Your task to perform on an android device: Check the new Jordans on Nike. Image 0: 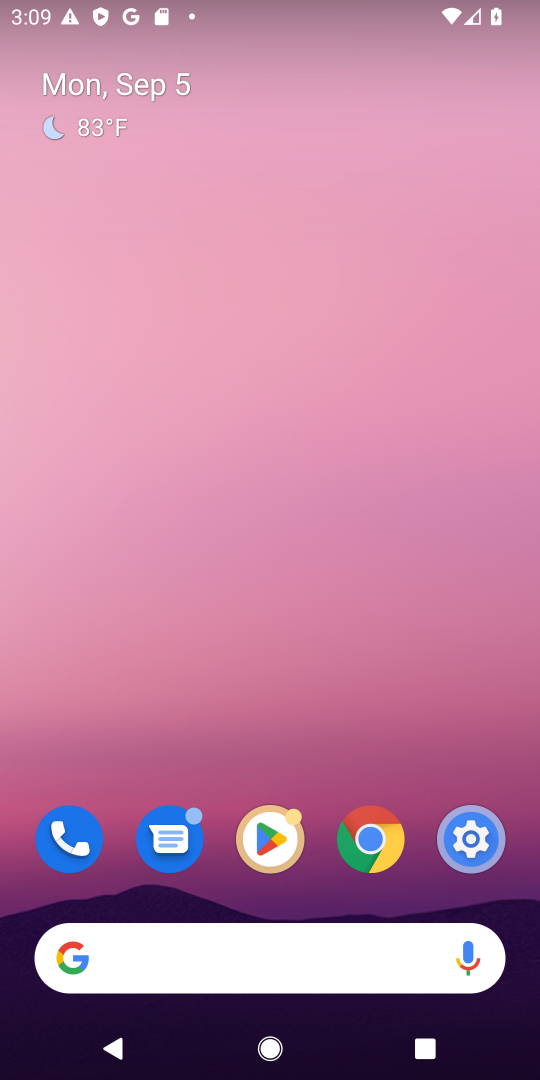
Step 0: click (346, 955)
Your task to perform on an android device: Check the new Jordans on Nike. Image 1: 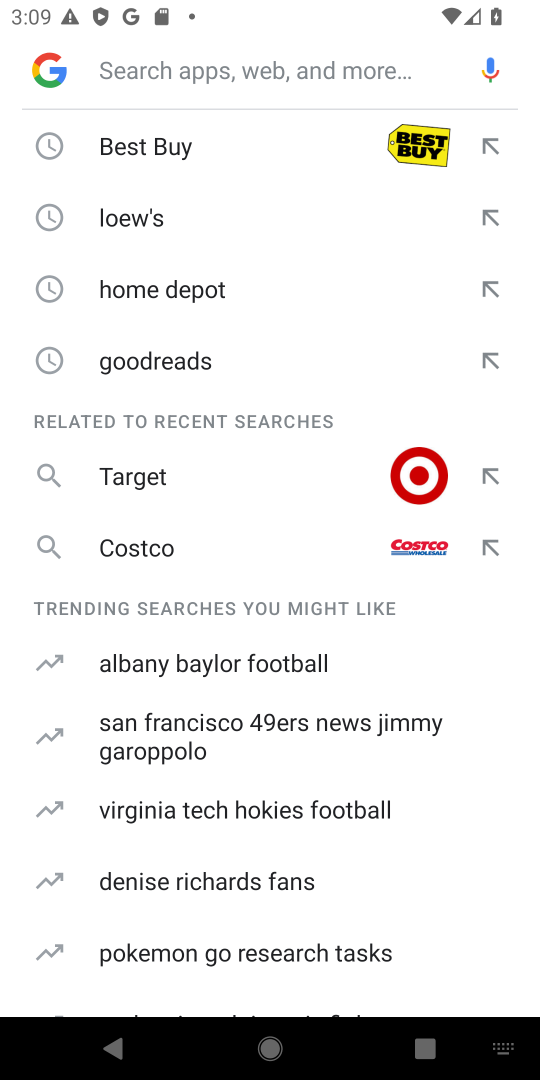
Step 1: type "nike"
Your task to perform on an android device: Check the new Jordans on Nike. Image 2: 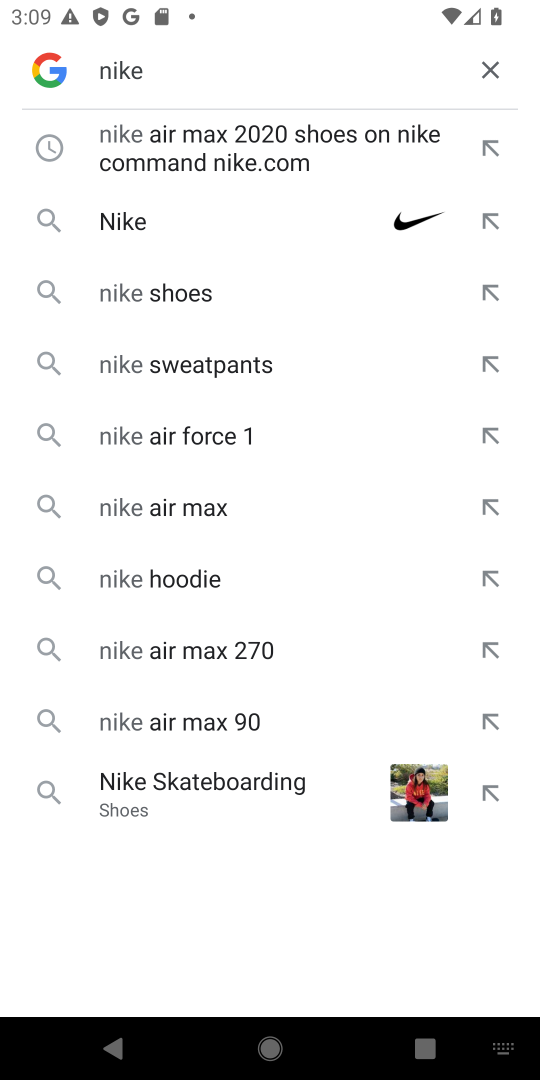
Step 2: press enter
Your task to perform on an android device: Check the new Jordans on Nike. Image 3: 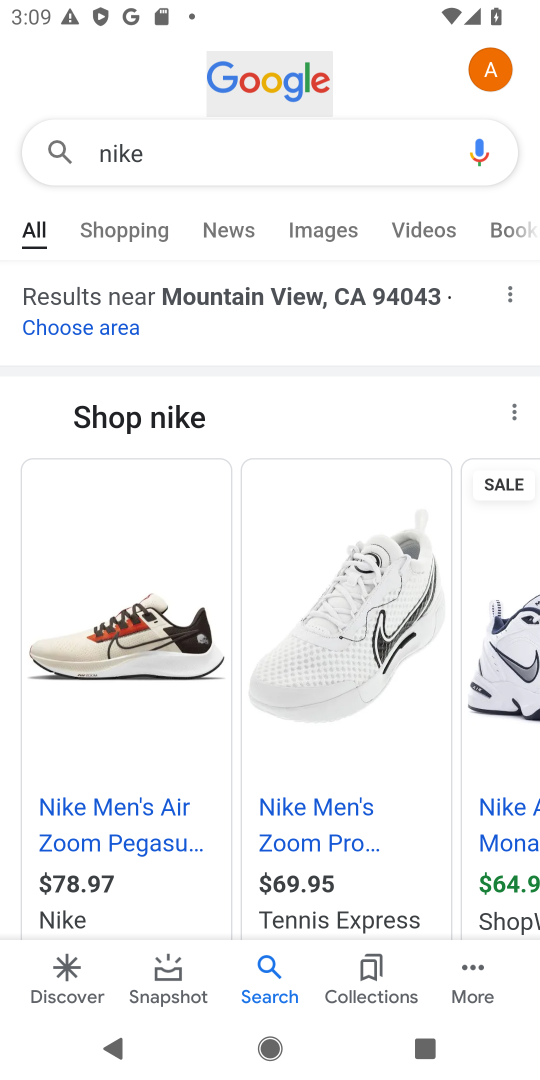
Step 3: drag from (252, 442) to (256, 334)
Your task to perform on an android device: Check the new Jordans on Nike. Image 4: 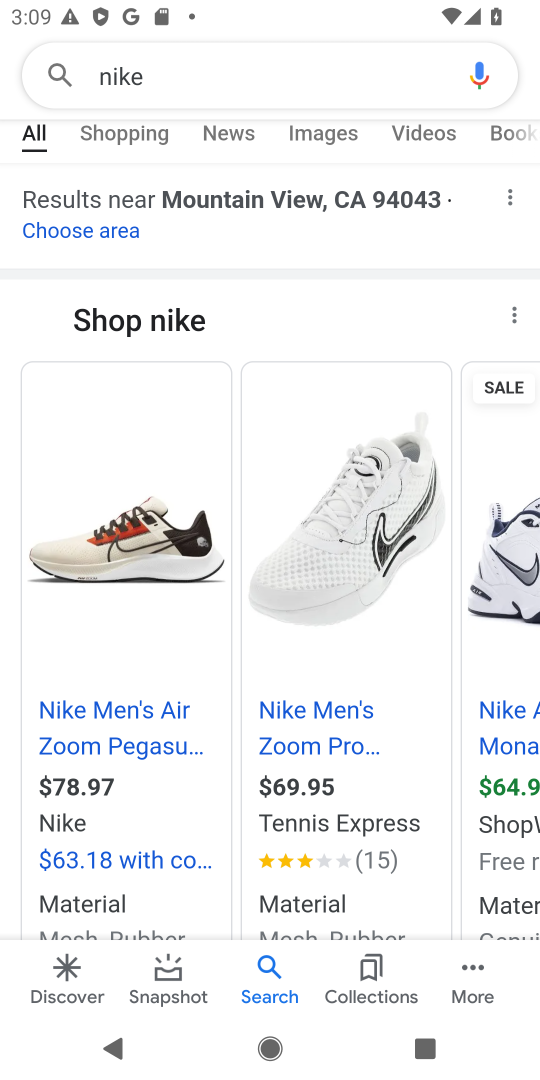
Step 4: drag from (233, 228) to (253, 0)
Your task to perform on an android device: Check the new Jordans on Nike. Image 5: 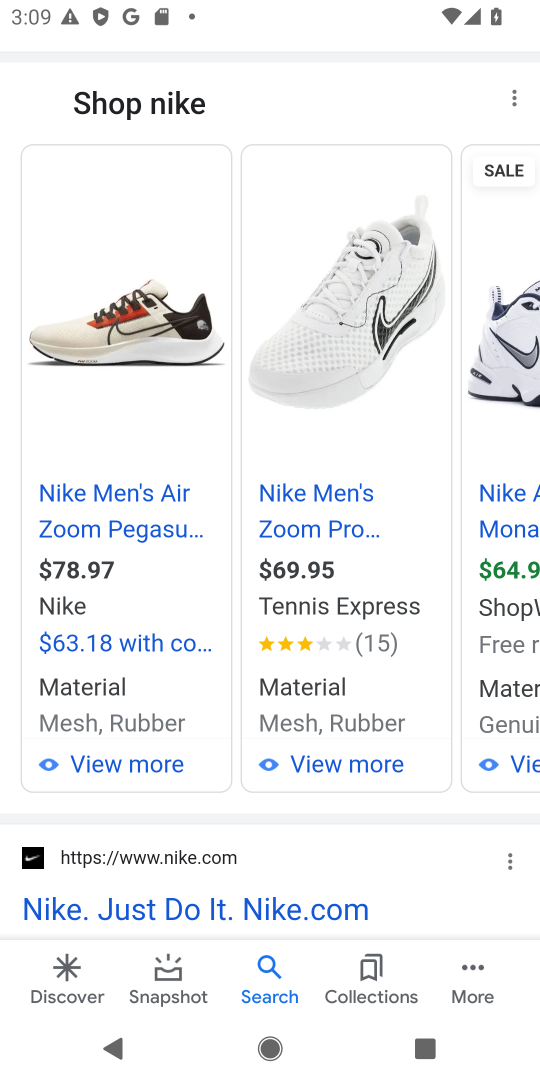
Step 5: click (132, 851)
Your task to perform on an android device: Check the new Jordans on Nike. Image 6: 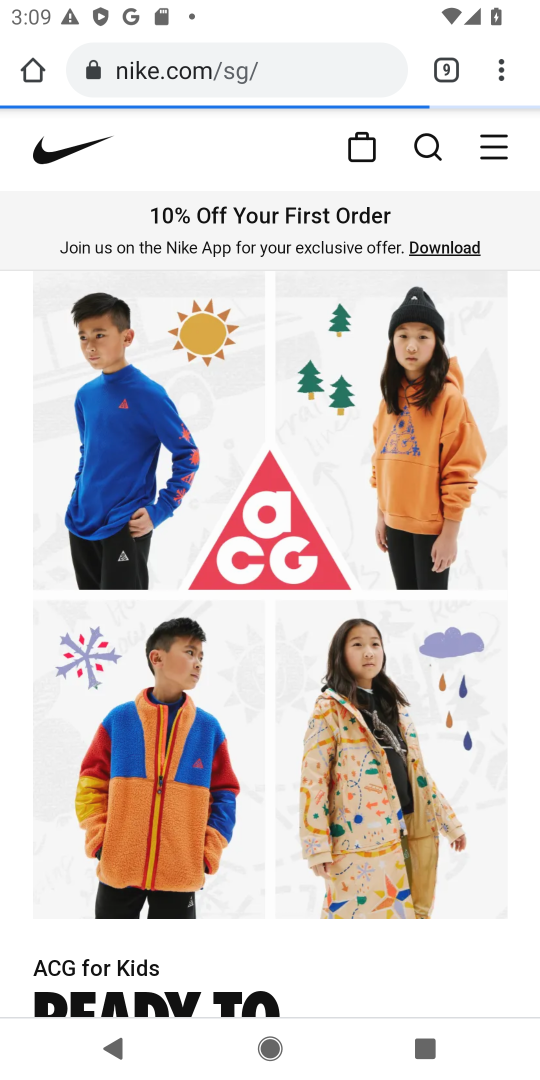
Step 6: click (415, 137)
Your task to perform on an android device: Check the new Jordans on Nike. Image 7: 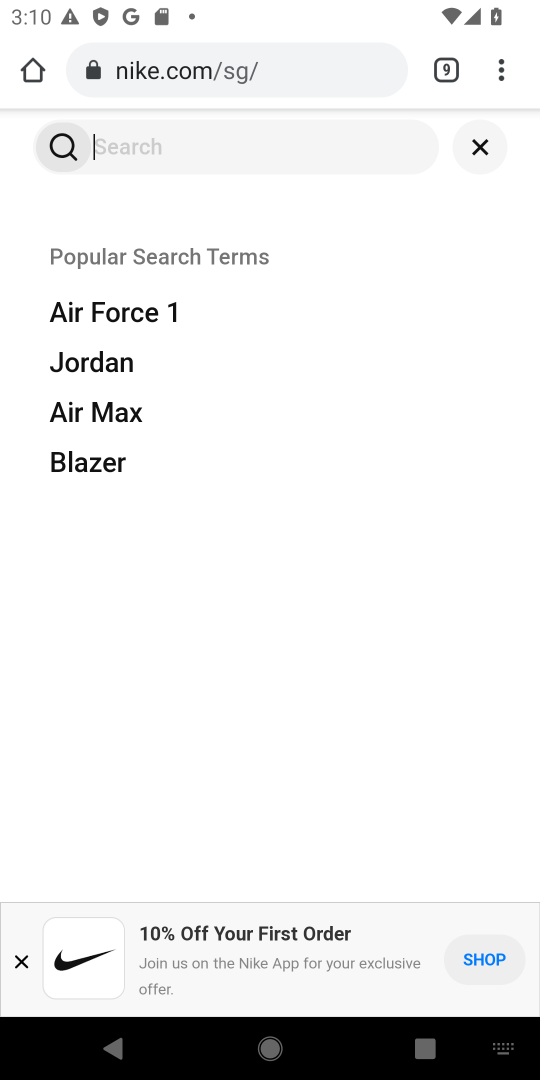
Step 7: type "new jordans"
Your task to perform on an android device: Check the new Jordans on Nike. Image 8: 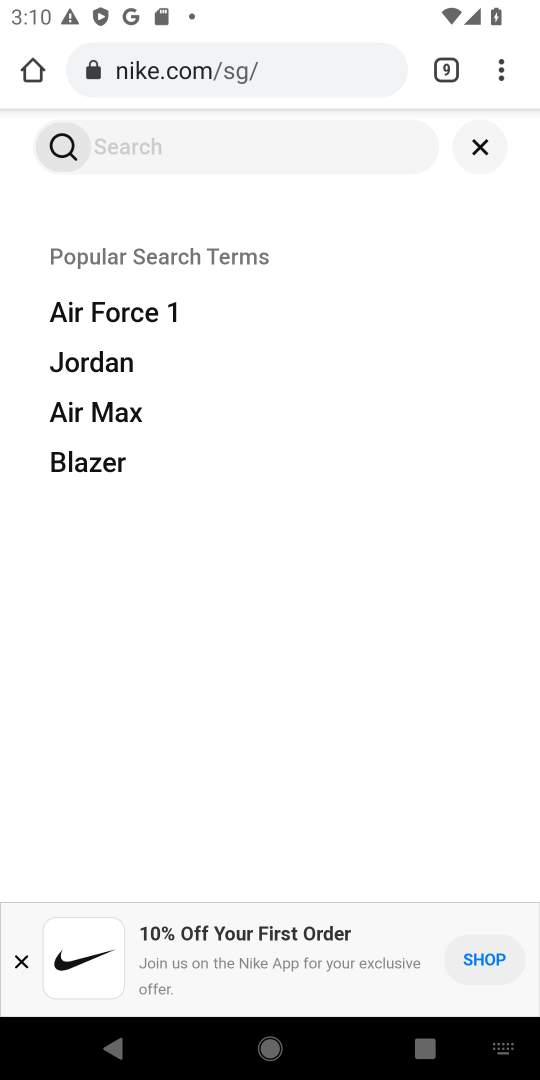
Step 8: type ""
Your task to perform on an android device: Check the new Jordans on Nike. Image 9: 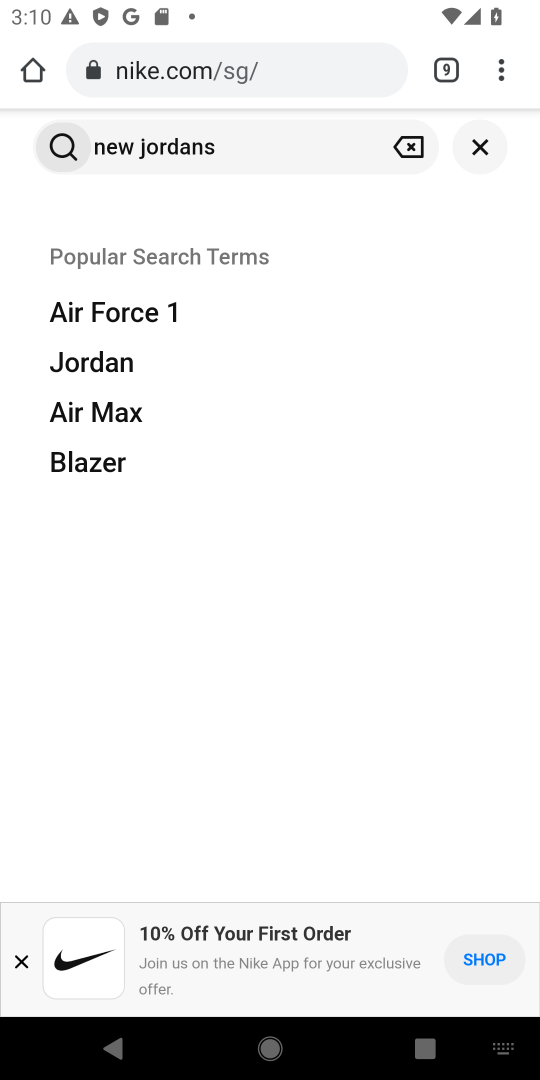
Step 9: type ""
Your task to perform on an android device: Check the new Jordans on Nike. Image 10: 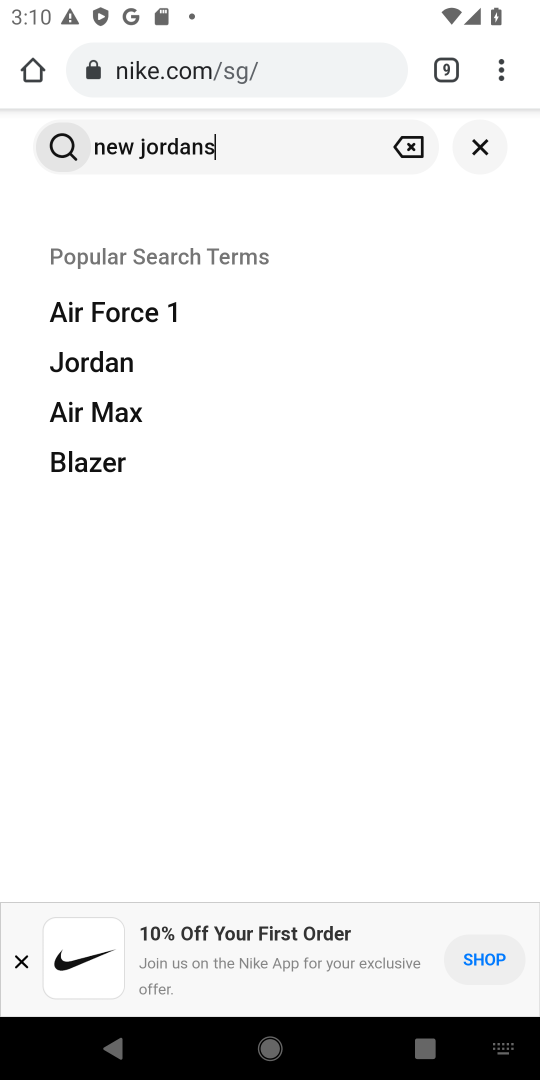
Step 10: press enter
Your task to perform on an android device: Check the new Jordans on Nike. Image 11: 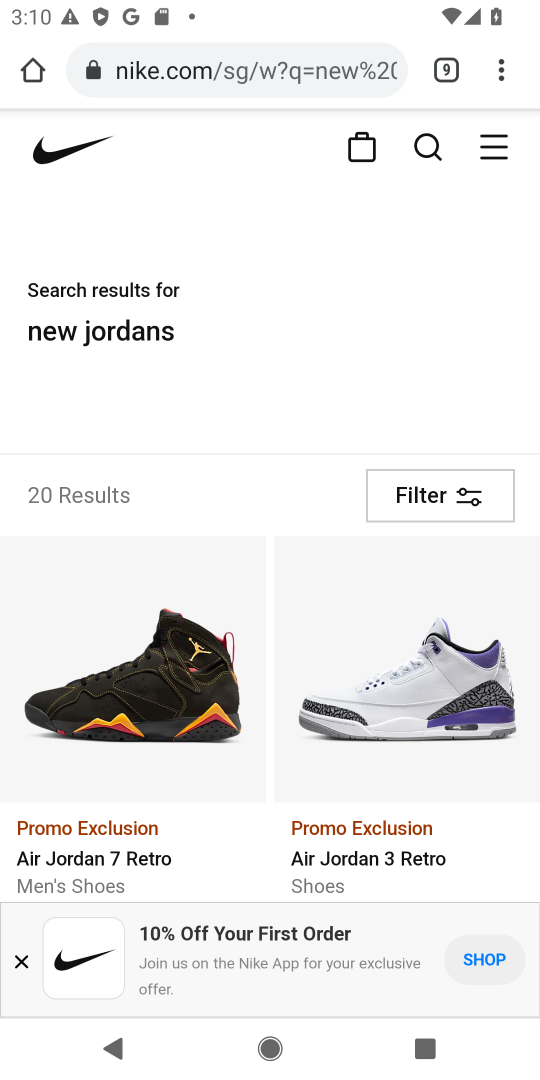
Step 11: drag from (226, 515) to (324, 105)
Your task to perform on an android device: Check the new Jordans on Nike. Image 12: 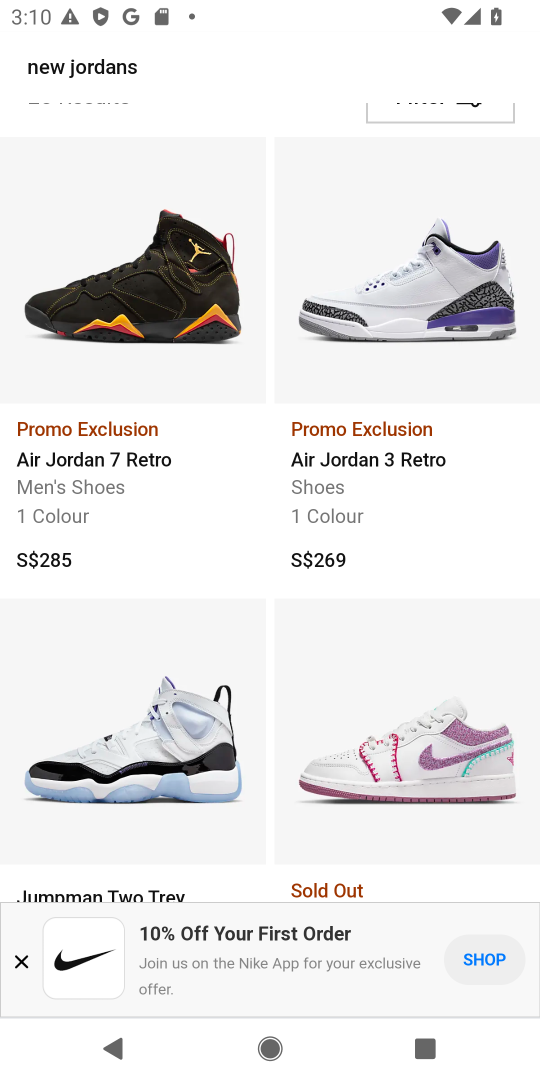
Step 12: drag from (248, 574) to (244, 252)
Your task to perform on an android device: Check the new Jordans on Nike. Image 13: 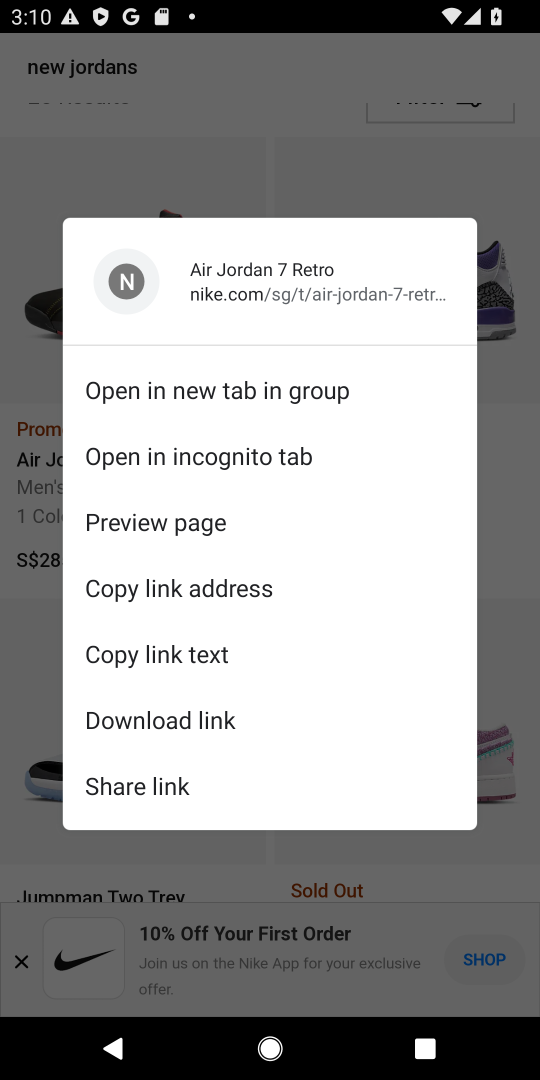
Step 13: click (299, 59)
Your task to perform on an android device: Check the new Jordans on Nike. Image 14: 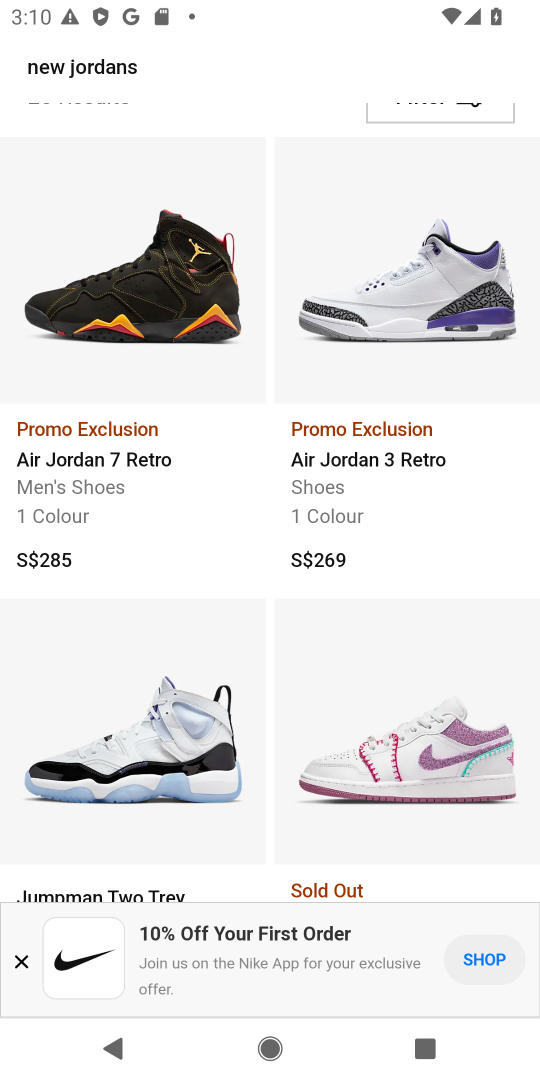
Step 14: drag from (271, 581) to (258, 435)
Your task to perform on an android device: Check the new Jordans on Nike. Image 15: 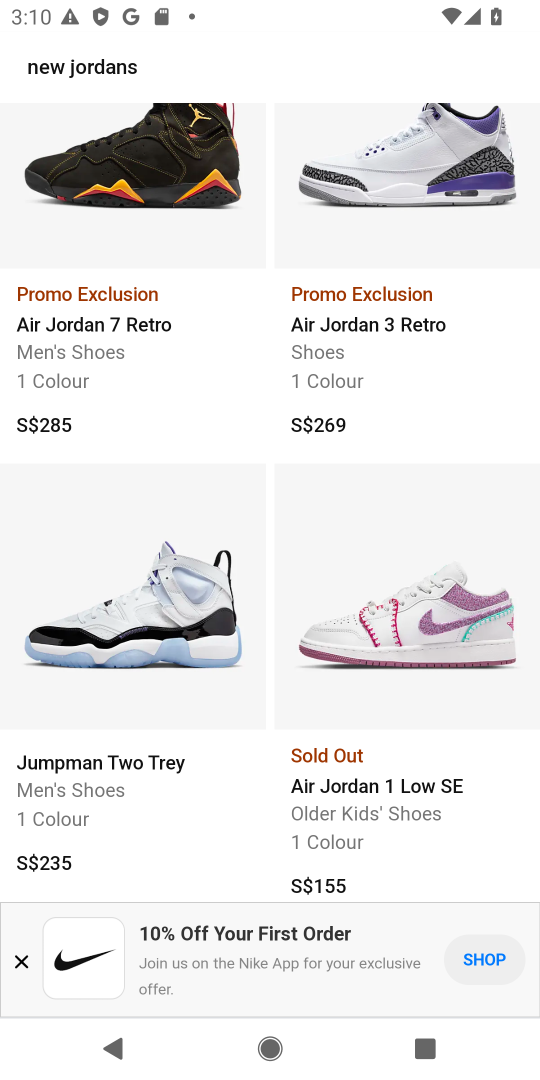
Step 15: drag from (146, 888) to (302, 83)
Your task to perform on an android device: Check the new Jordans on Nike. Image 16: 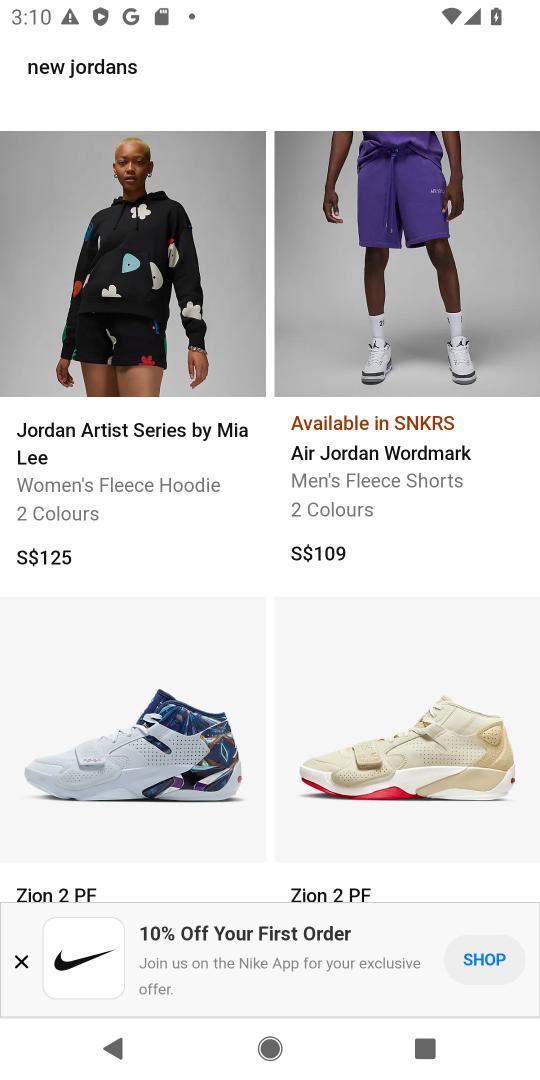
Step 16: drag from (272, 589) to (314, 14)
Your task to perform on an android device: Check the new Jordans on Nike. Image 17: 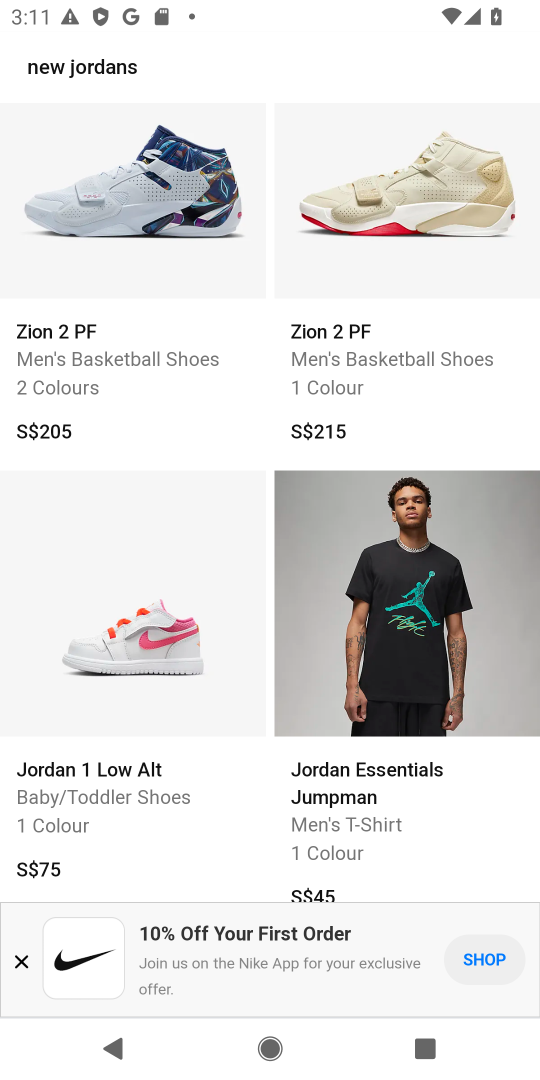
Step 17: drag from (7, 452) to (366, 4)
Your task to perform on an android device: Check the new Jordans on Nike. Image 18: 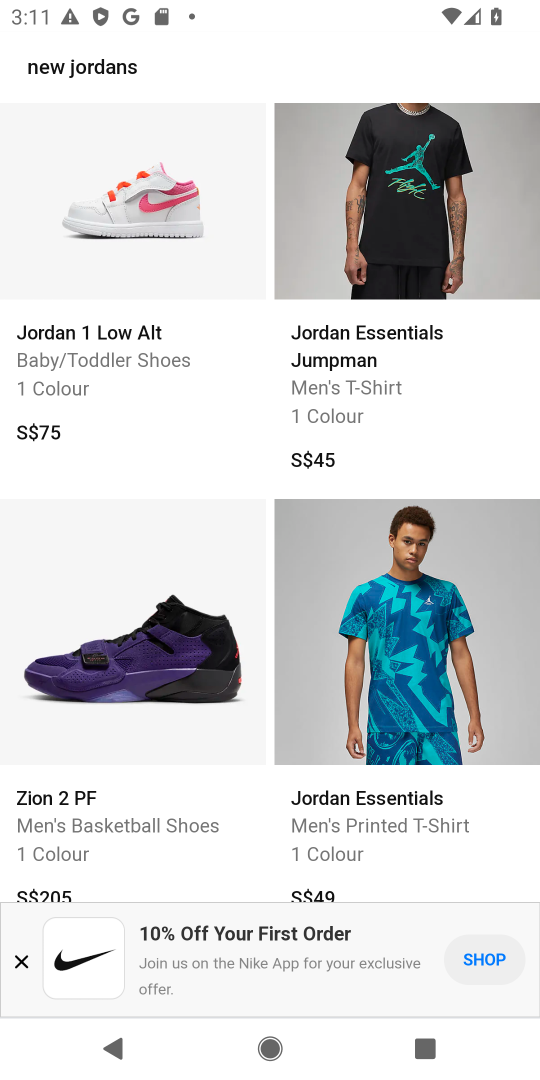
Step 18: drag from (271, 478) to (279, 276)
Your task to perform on an android device: Check the new Jordans on Nike. Image 19: 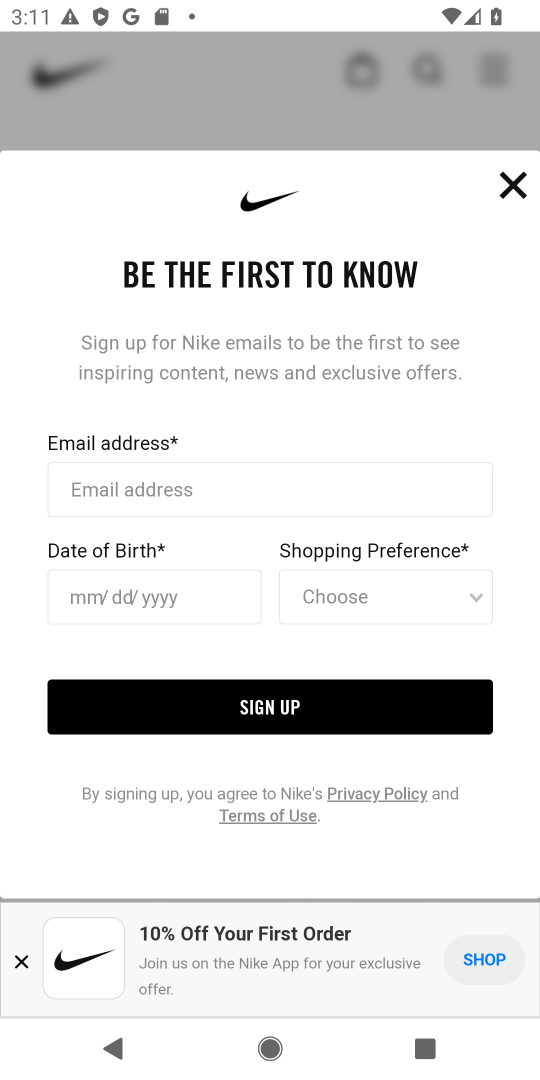
Step 19: click (513, 183)
Your task to perform on an android device: Check the new Jordans on Nike. Image 20: 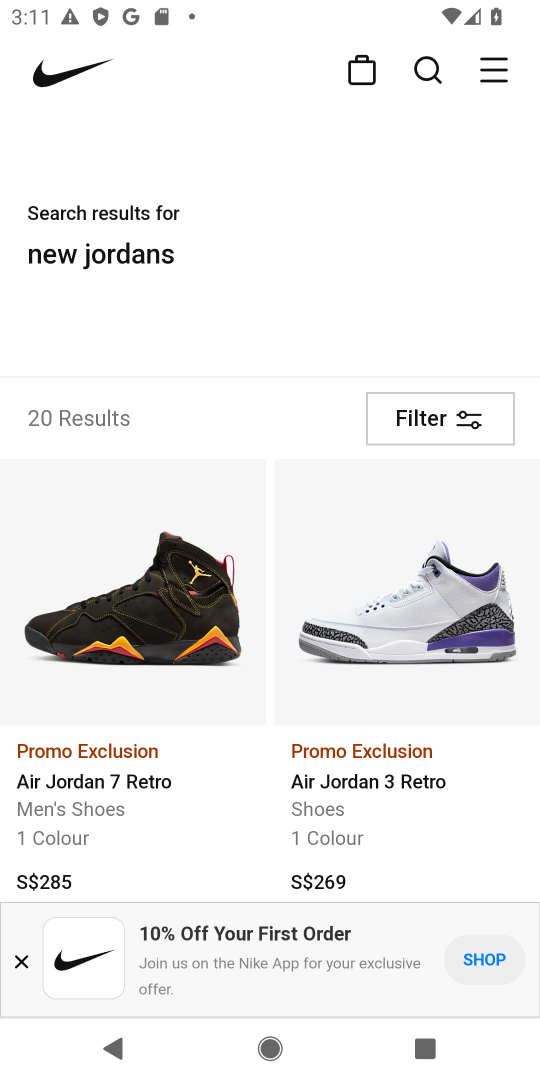
Step 20: drag from (288, 402) to (243, 1077)
Your task to perform on an android device: Check the new Jordans on Nike. Image 21: 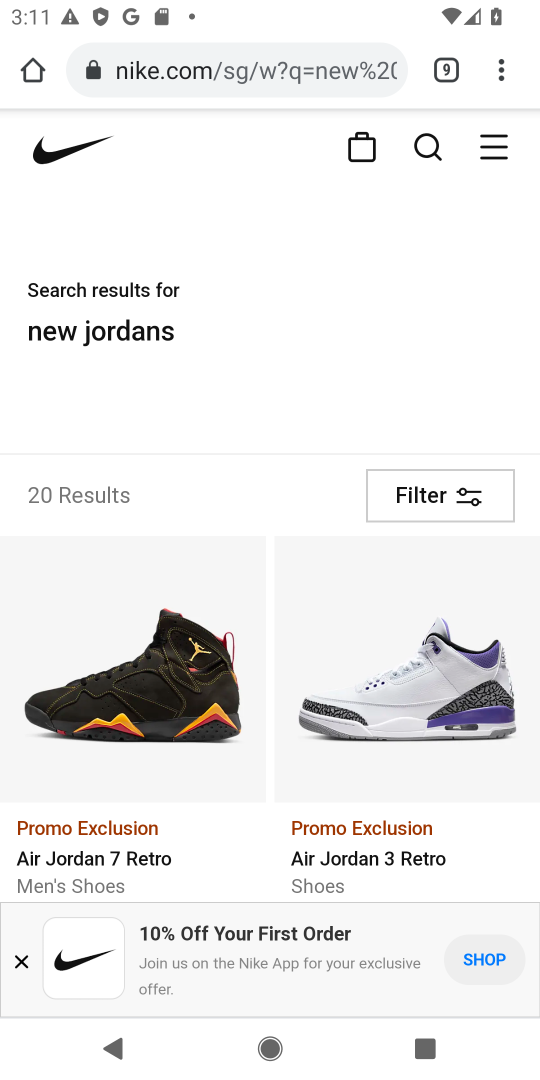
Step 21: task complete
Your task to perform on an android device: Check the new Jordans on Nike. Image 22: 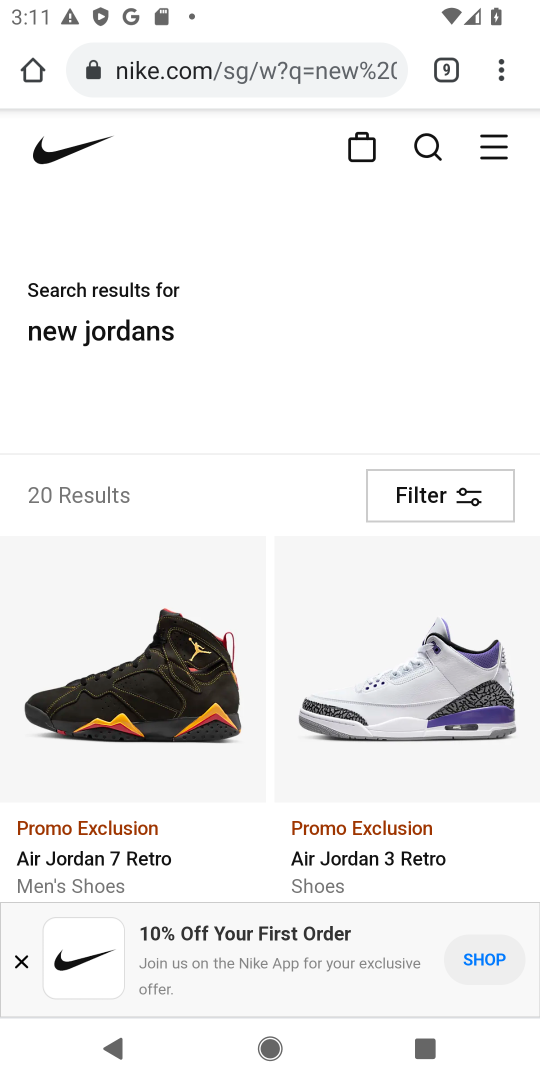
Step 22: task complete